Your task to perform on an android device: install app "Spotify" Image 0: 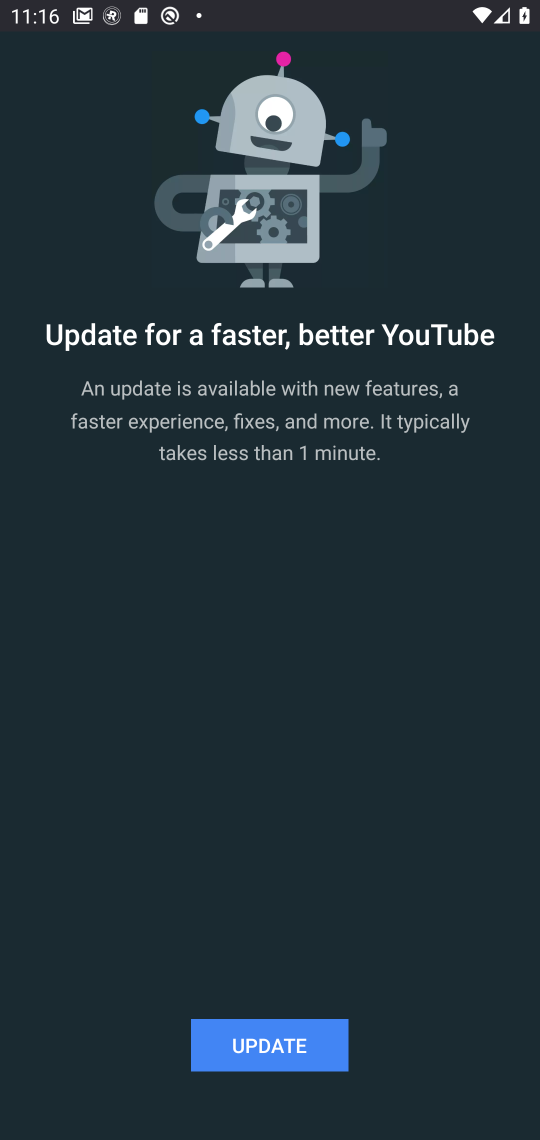
Step 0: press home button
Your task to perform on an android device: install app "Spotify" Image 1: 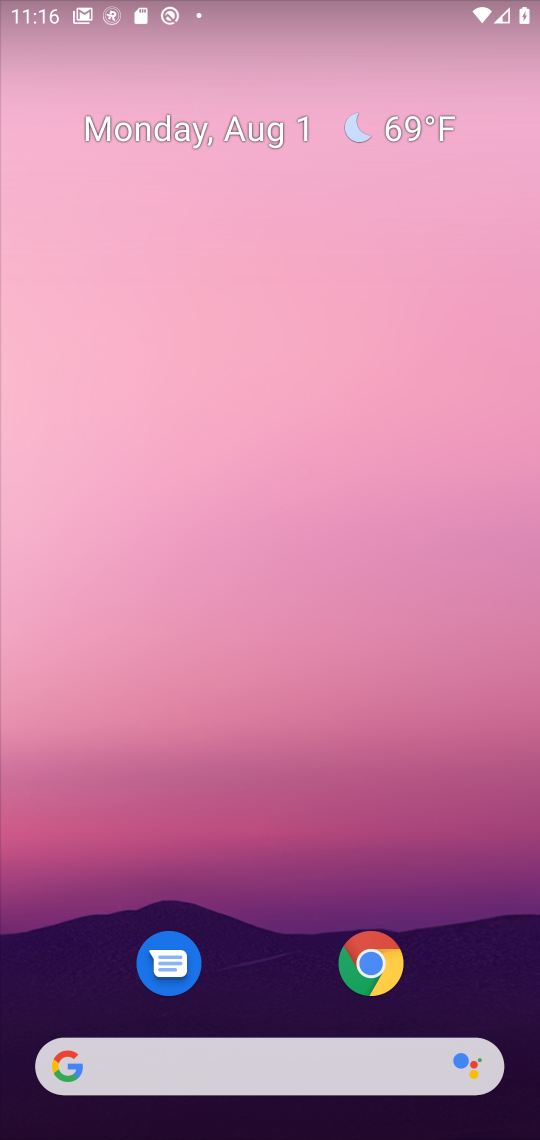
Step 1: drag from (263, 992) to (264, 20)
Your task to perform on an android device: install app "Spotify" Image 2: 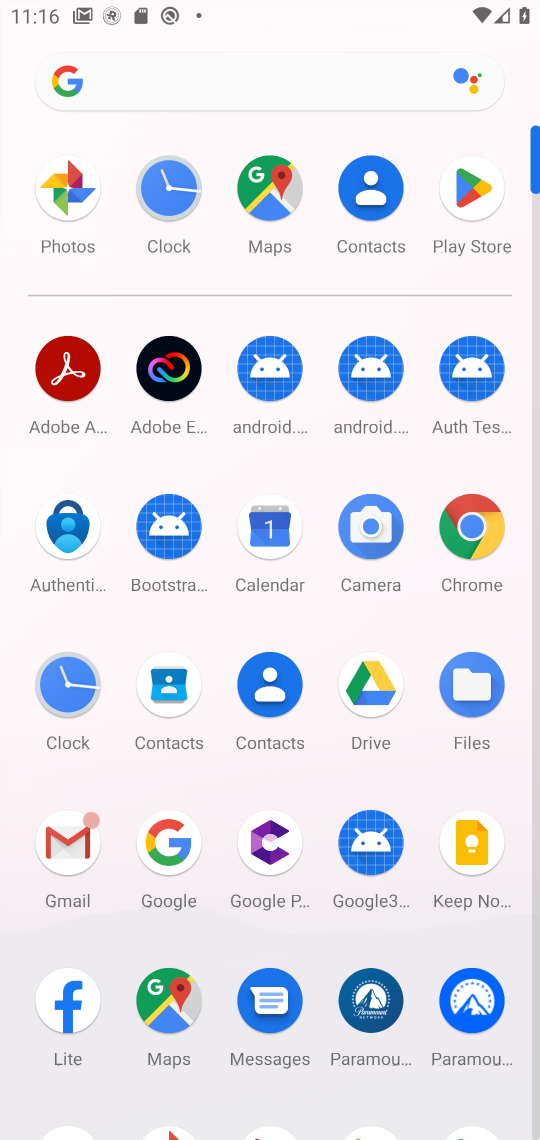
Step 2: click (470, 222)
Your task to perform on an android device: install app "Spotify" Image 3: 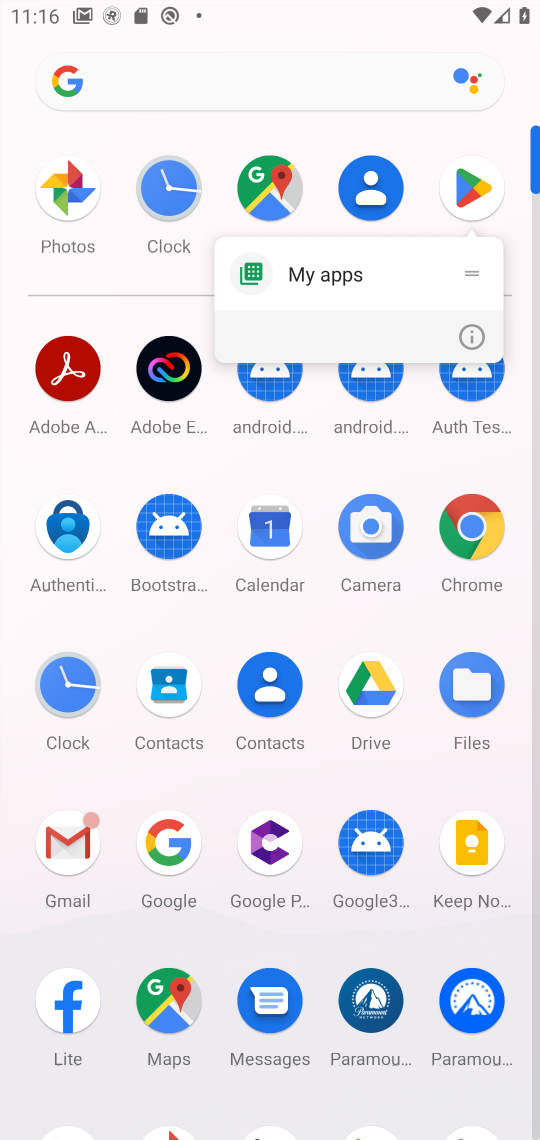
Step 3: click (490, 185)
Your task to perform on an android device: install app "Spotify" Image 4: 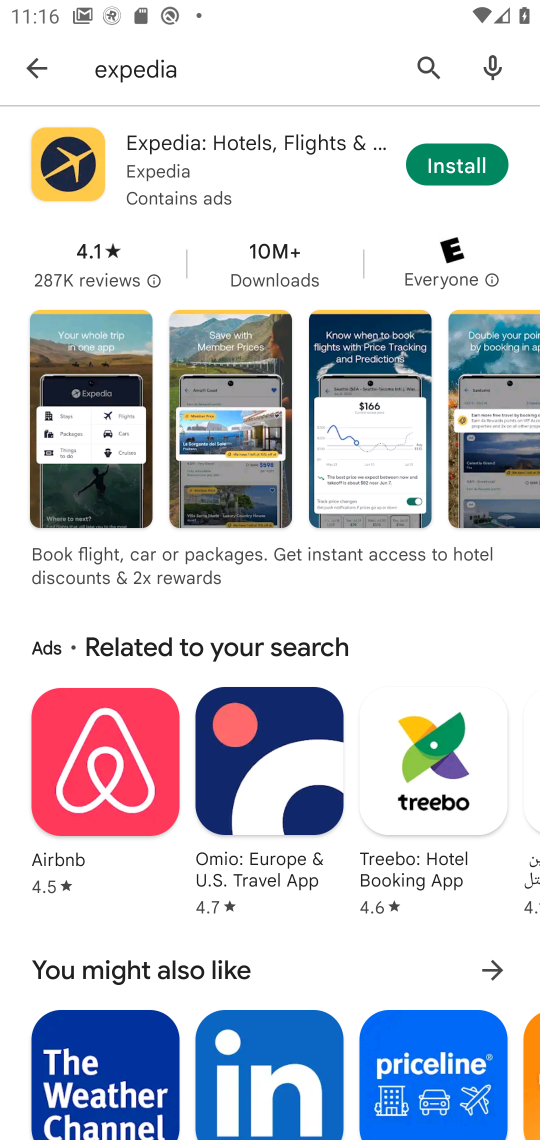
Step 4: click (230, 86)
Your task to perform on an android device: install app "Spotify" Image 5: 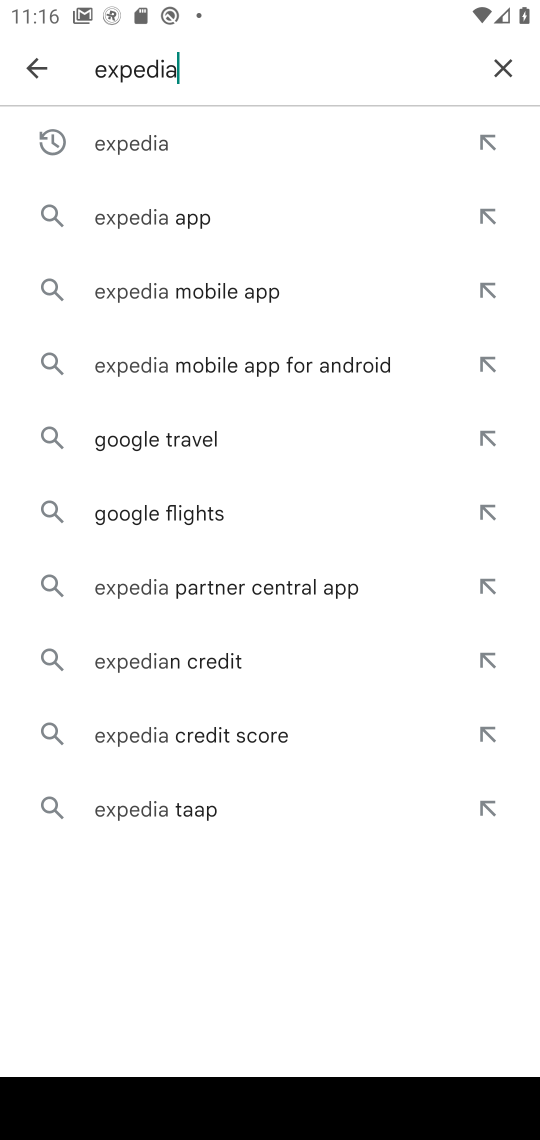
Step 5: click (498, 50)
Your task to perform on an android device: install app "Spotify" Image 6: 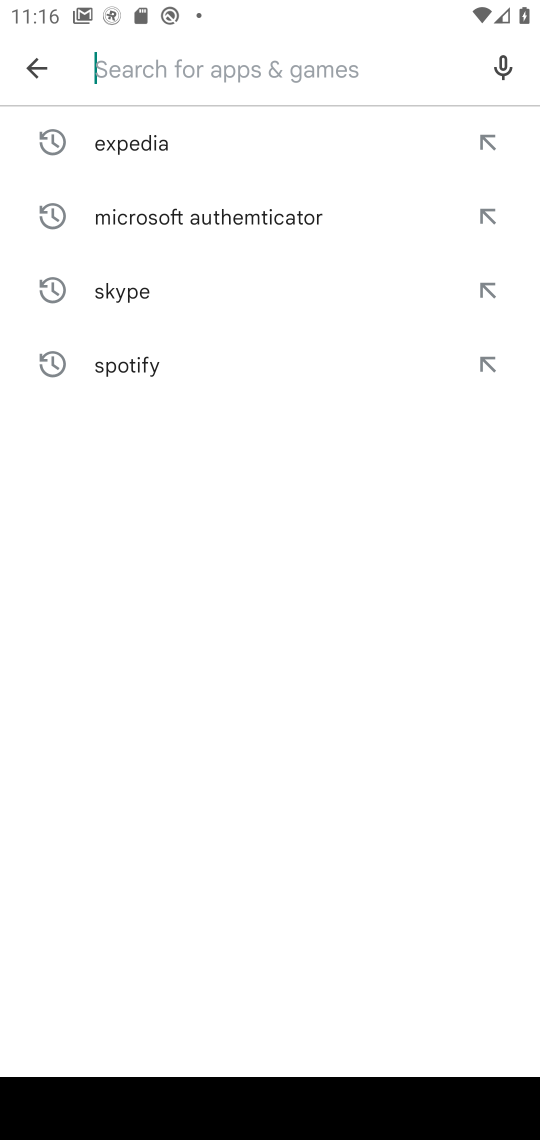
Step 6: type "spotify"
Your task to perform on an android device: install app "Spotify" Image 7: 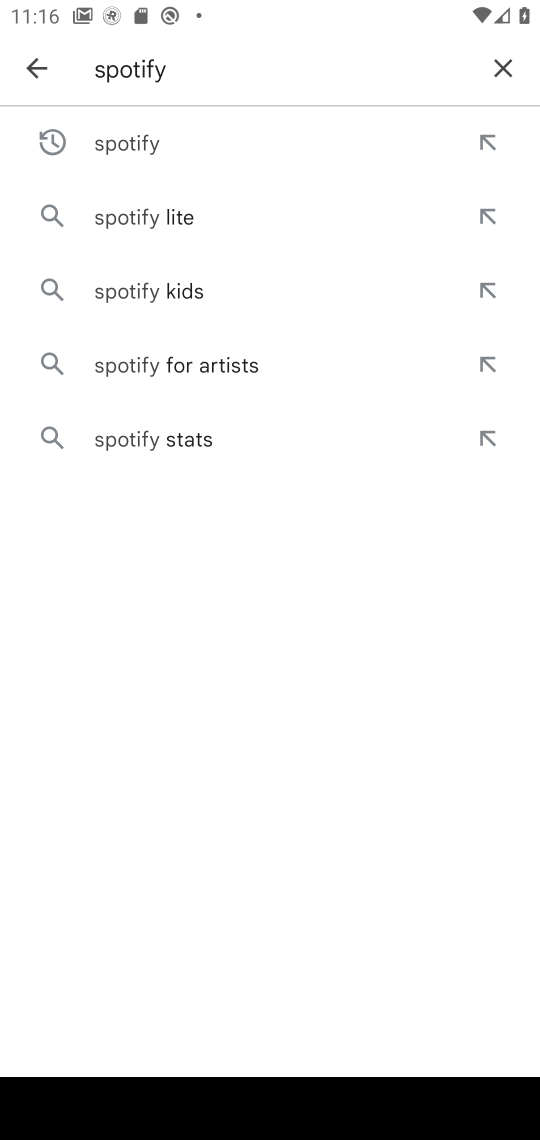
Step 7: click (181, 159)
Your task to perform on an android device: install app "Spotify" Image 8: 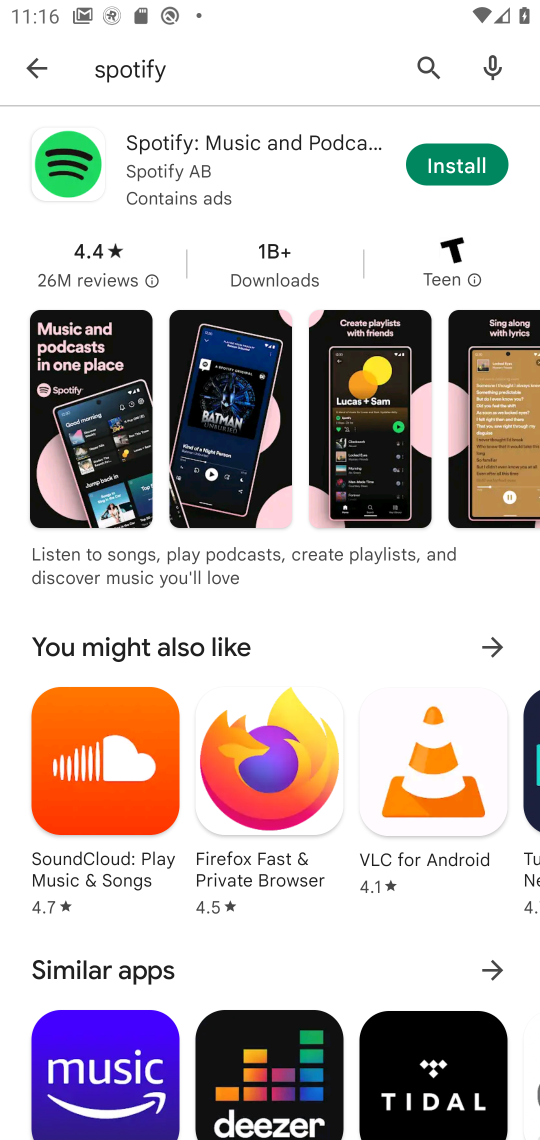
Step 8: click (470, 172)
Your task to perform on an android device: install app "Spotify" Image 9: 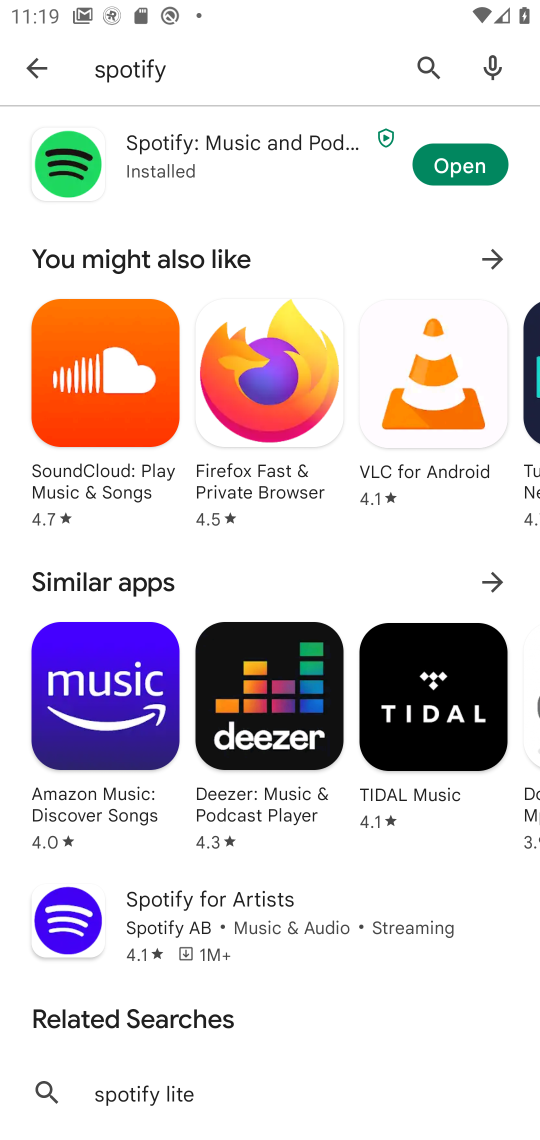
Step 9: task complete